Your task to perform on an android device: What is the news today? Image 0: 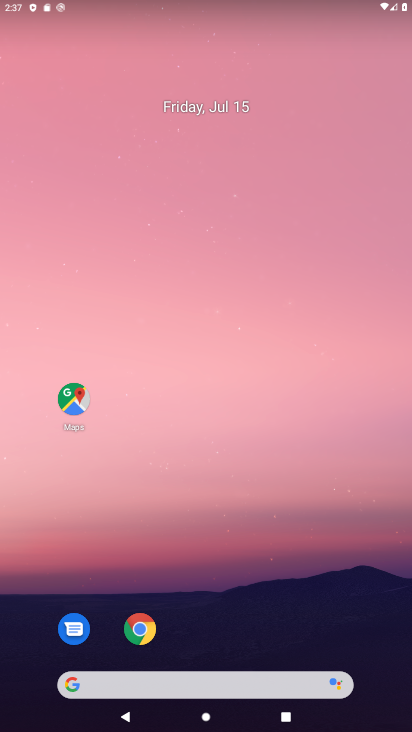
Step 0: drag from (220, 678) to (163, 192)
Your task to perform on an android device: What is the news today? Image 1: 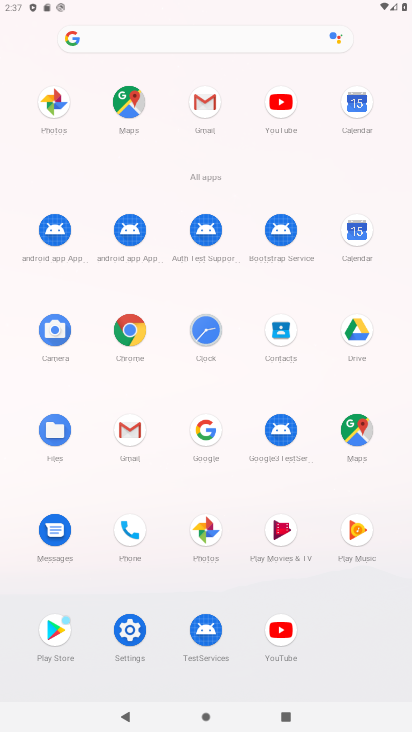
Step 1: click (200, 434)
Your task to perform on an android device: What is the news today? Image 2: 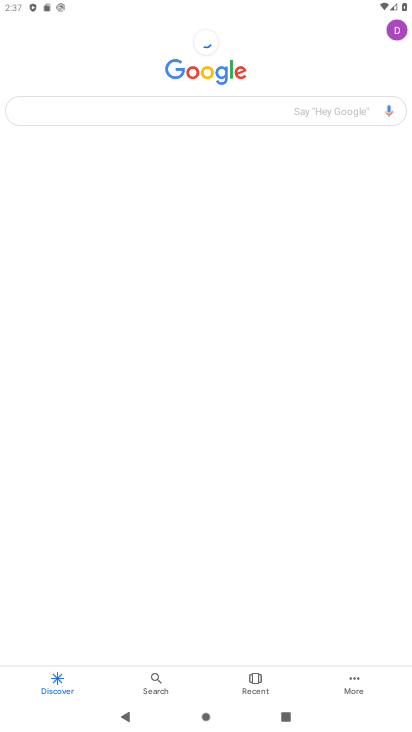
Step 2: click (169, 124)
Your task to perform on an android device: What is the news today? Image 3: 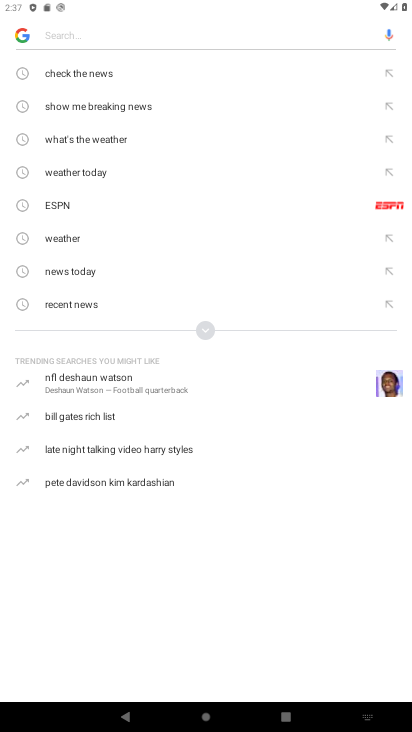
Step 3: click (75, 277)
Your task to perform on an android device: What is the news today? Image 4: 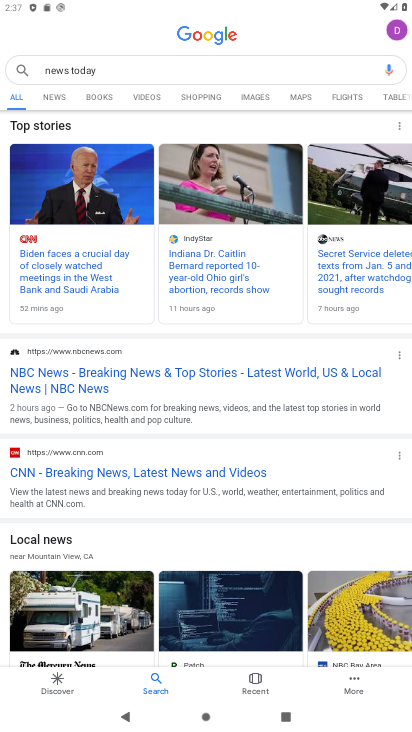
Step 4: click (62, 104)
Your task to perform on an android device: What is the news today? Image 5: 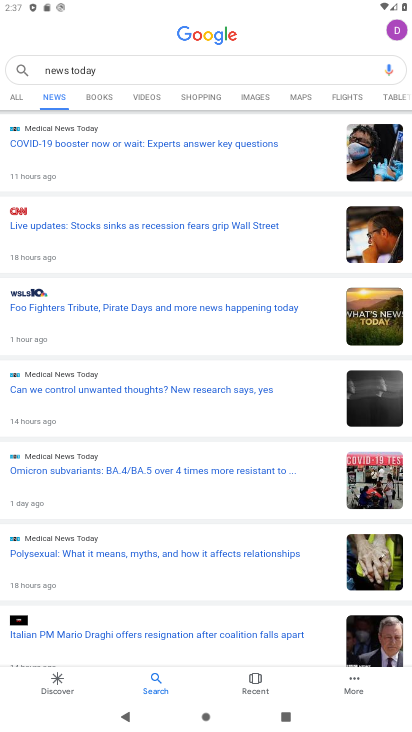
Step 5: task complete